Your task to perform on an android device: Open the web browser Image 0: 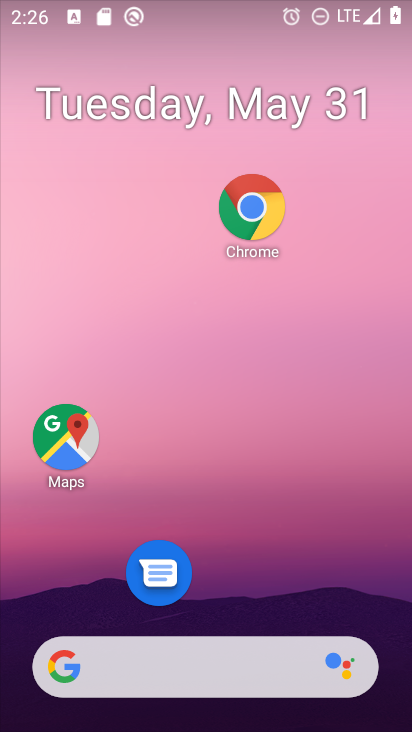
Step 0: drag from (157, 644) to (153, 178)
Your task to perform on an android device: Open the web browser Image 1: 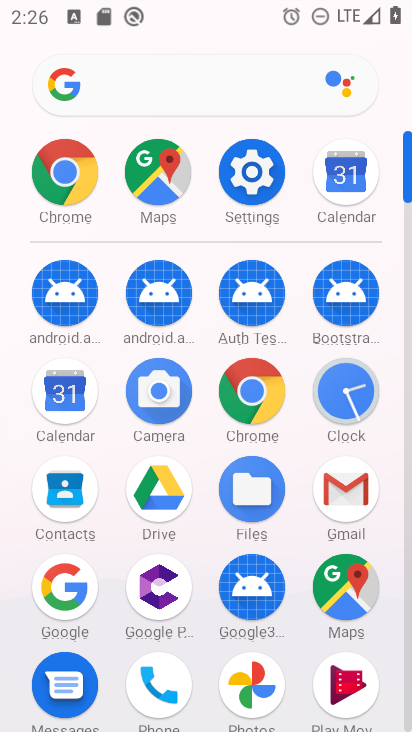
Step 1: drag from (163, 501) to (158, 383)
Your task to perform on an android device: Open the web browser Image 2: 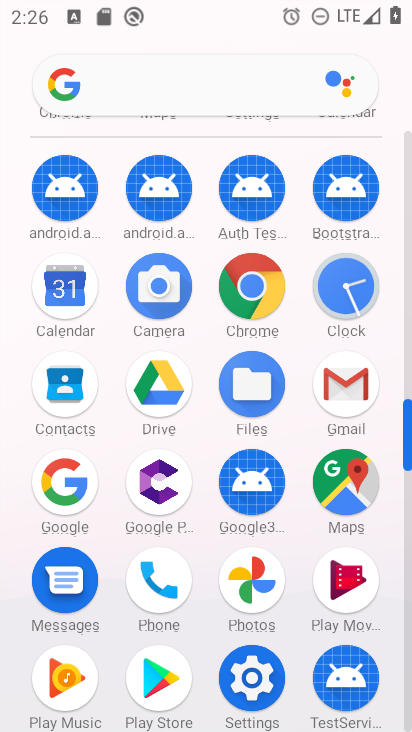
Step 2: click (242, 309)
Your task to perform on an android device: Open the web browser Image 3: 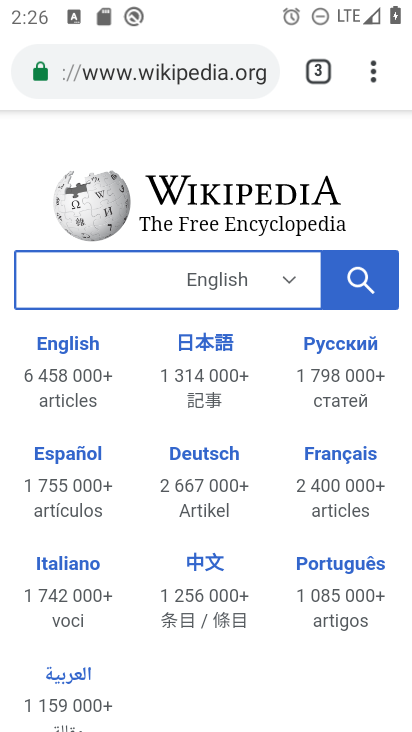
Step 3: task complete